Your task to perform on an android device: show emergency info Image 0: 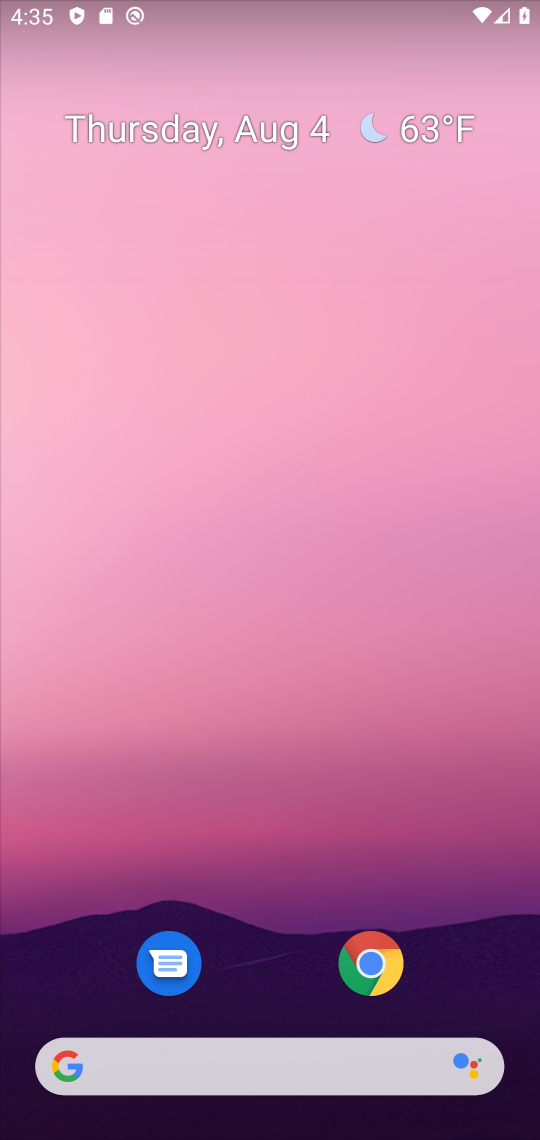
Step 0: drag from (262, 943) to (259, 39)
Your task to perform on an android device: show emergency info Image 1: 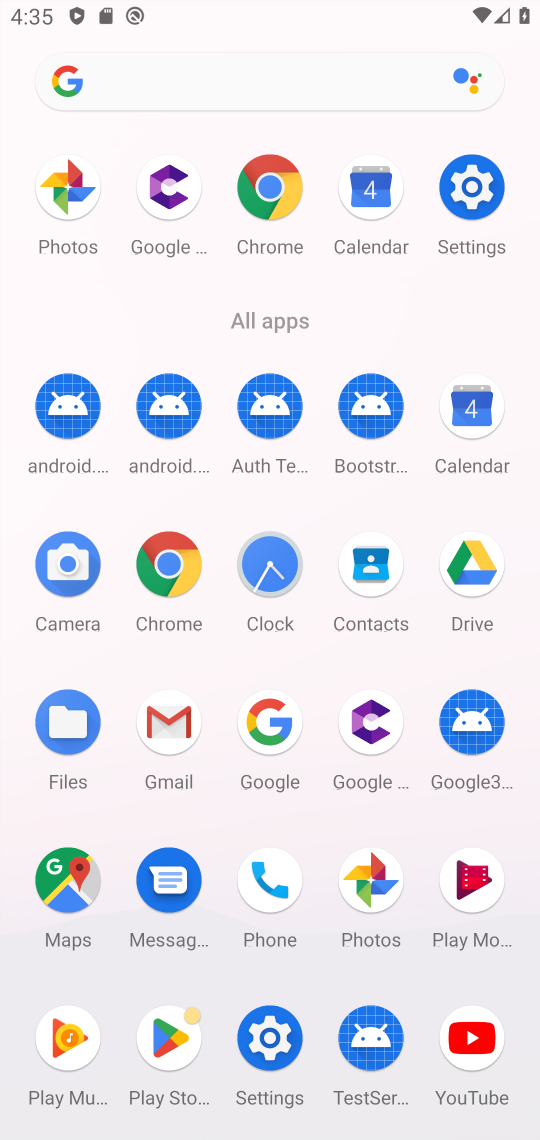
Step 1: click (483, 186)
Your task to perform on an android device: show emergency info Image 2: 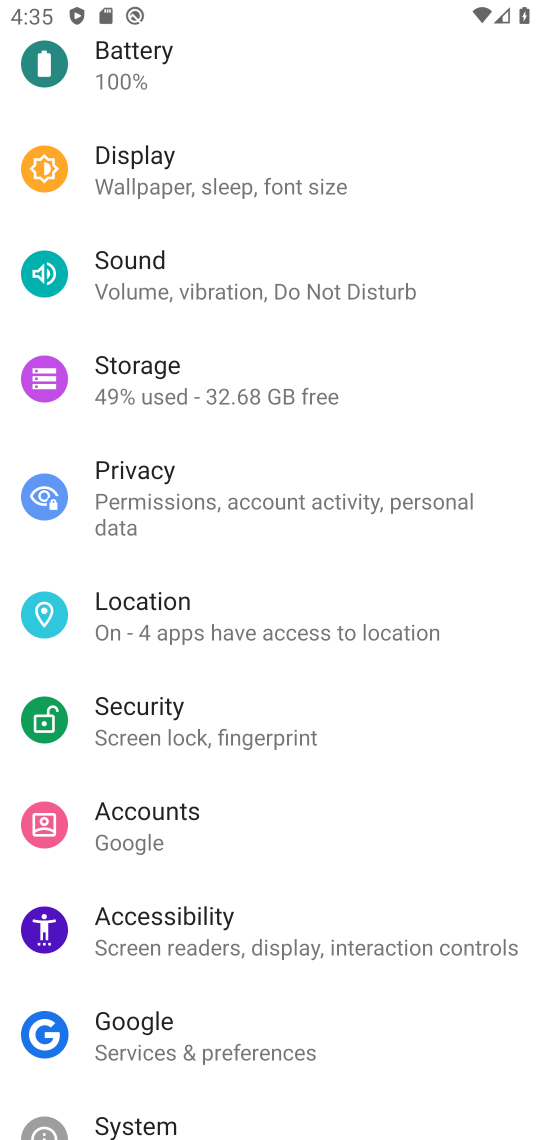
Step 2: drag from (261, 883) to (247, 136)
Your task to perform on an android device: show emergency info Image 3: 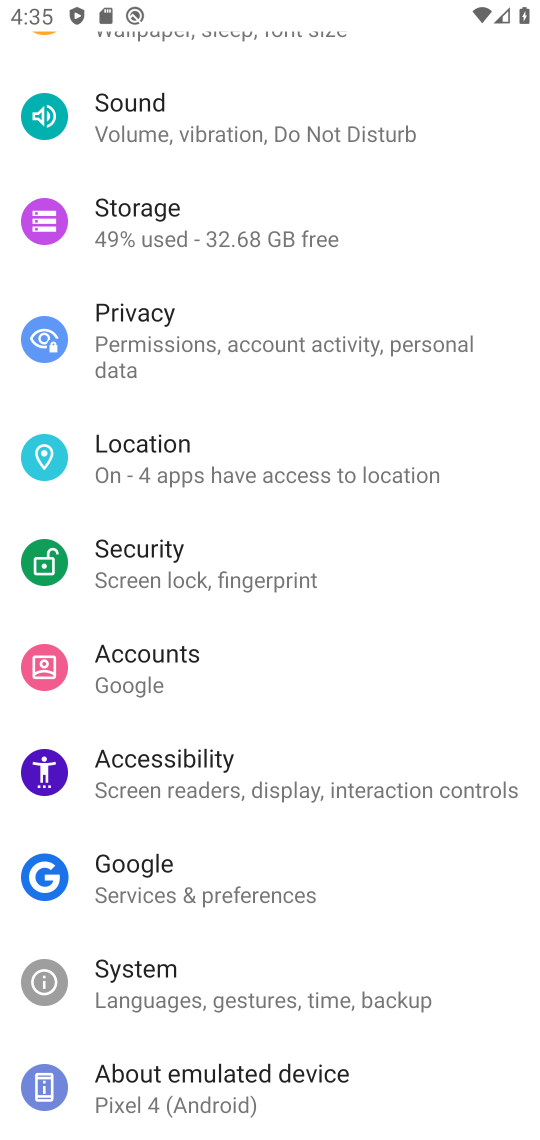
Step 3: click (253, 1064)
Your task to perform on an android device: show emergency info Image 4: 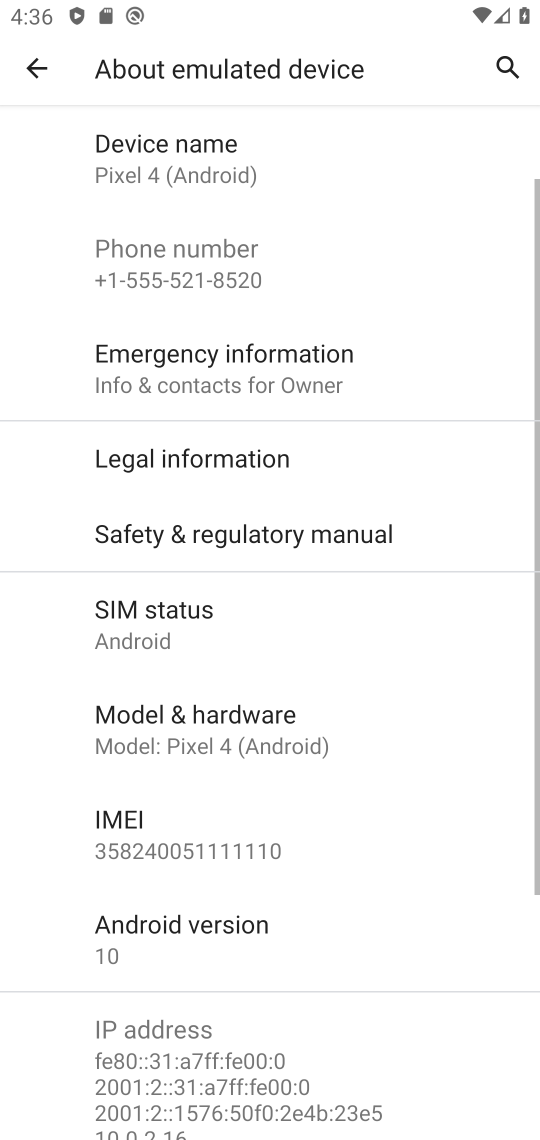
Step 4: click (216, 353)
Your task to perform on an android device: show emergency info Image 5: 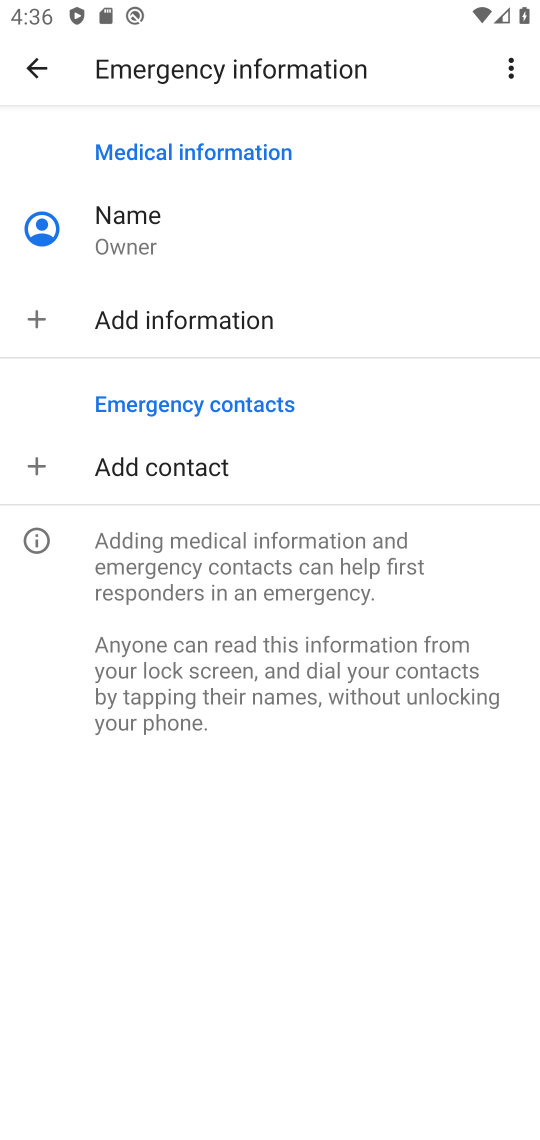
Step 5: task complete